Your task to perform on an android device: install app "Google News" Image 0: 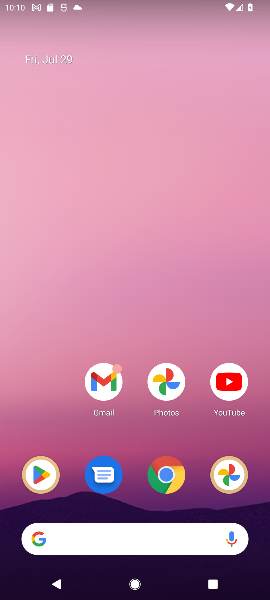
Step 0: drag from (200, 432) to (204, 4)
Your task to perform on an android device: install app "Google News" Image 1: 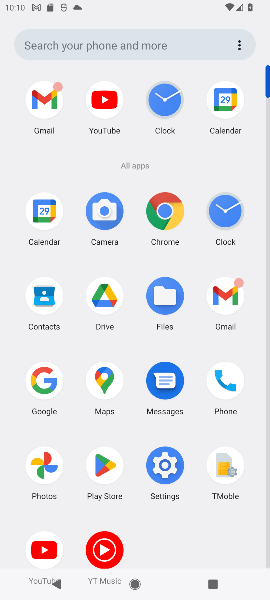
Step 1: click (112, 463)
Your task to perform on an android device: install app "Google News" Image 2: 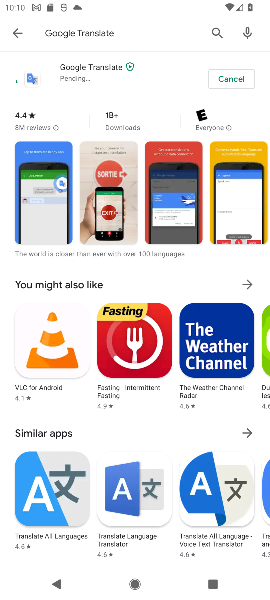
Step 2: click (11, 29)
Your task to perform on an android device: install app "Google News" Image 3: 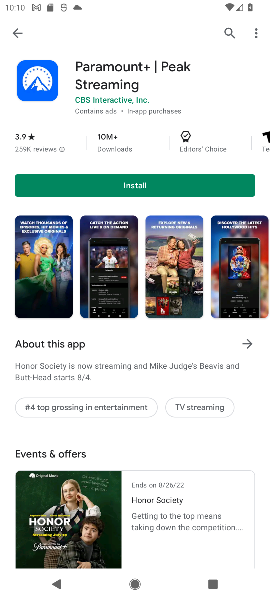
Step 3: click (229, 33)
Your task to perform on an android device: install app "Google News" Image 4: 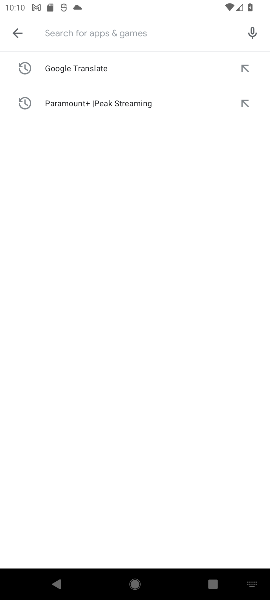
Step 4: type "Google News"
Your task to perform on an android device: install app "Google News" Image 5: 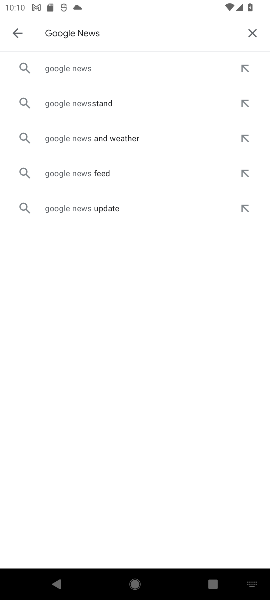
Step 5: press enter
Your task to perform on an android device: install app "Google News" Image 6: 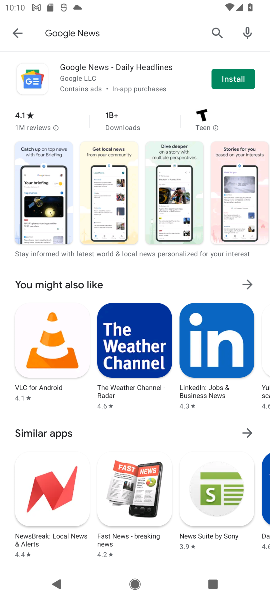
Step 6: click (219, 86)
Your task to perform on an android device: install app "Google News" Image 7: 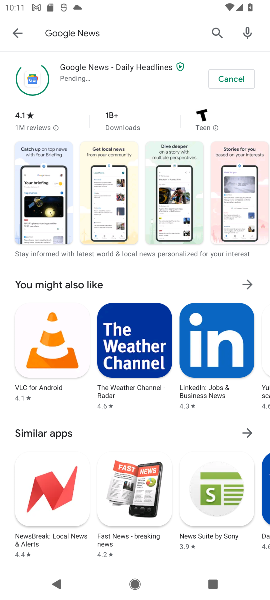
Step 7: task complete